Your task to perform on an android device: choose inbox layout in the gmail app Image 0: 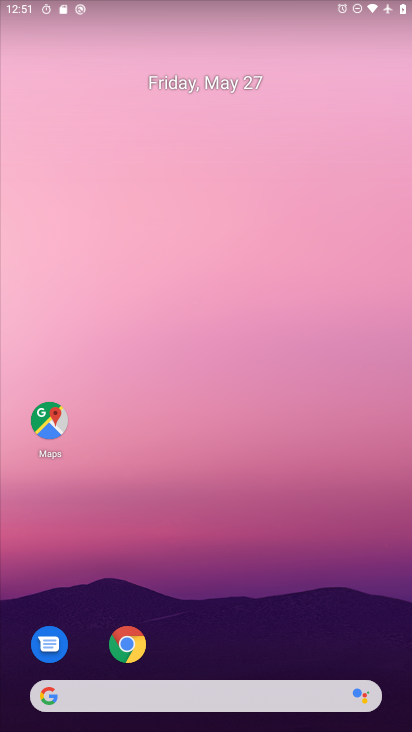
Step 0: drag from (240, 638) to (212, 247)
Your task to perform on an android device: choose inbox layout in the gmail app Image 1: 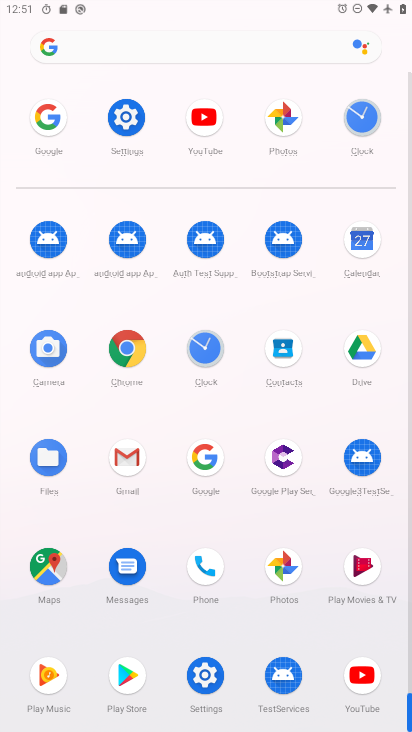
Step 1: click (137, 456)
Your task to perform on an android device: choose inbox layout in the gmail app Image 2: 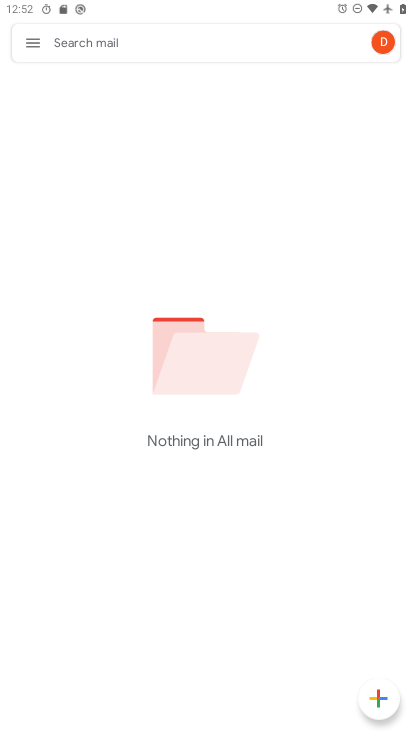
Step 2: click (24, 31)
Your task to perform on an android device: choose inbox layout in the gmail app Image 3: 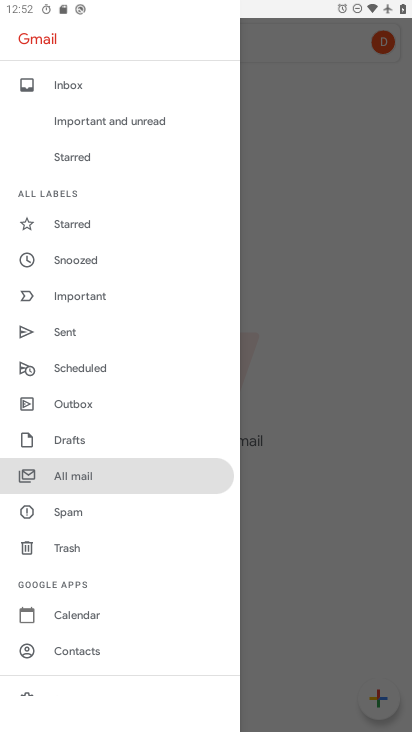
Step 3: drag from (102, 633) to (91, 430)
Your task to perform on an android device: choose inbox layout in the gmail app Image 4: 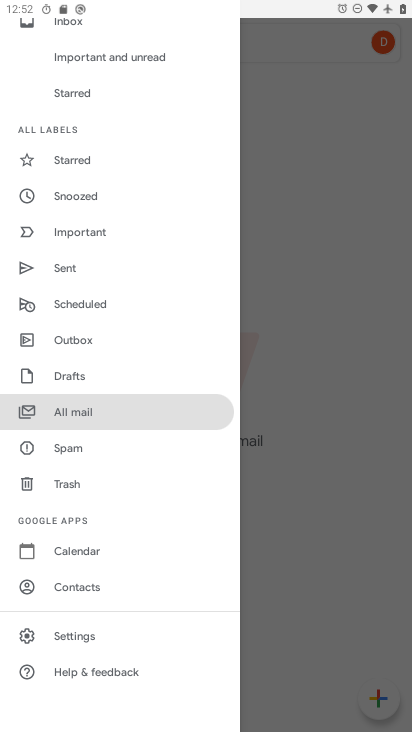
Step 4: click (80, 642)
Your task to perform on an android device: choose inbox layout in the gmail app Image 5: 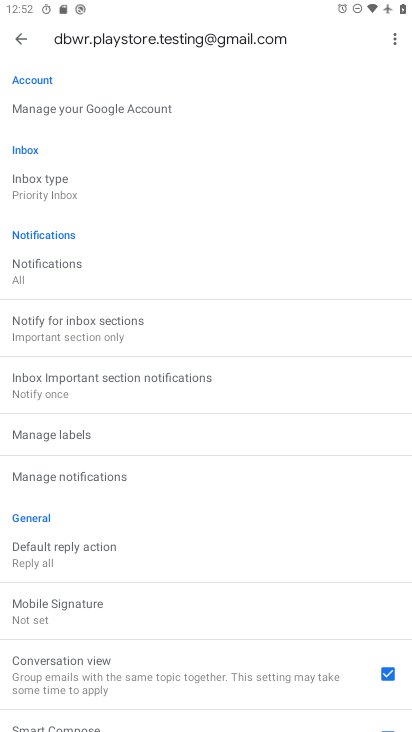
Step 5: click (92, 193)
Your task to perform on an android device: choose inbox layout in the gmail app Image 6: 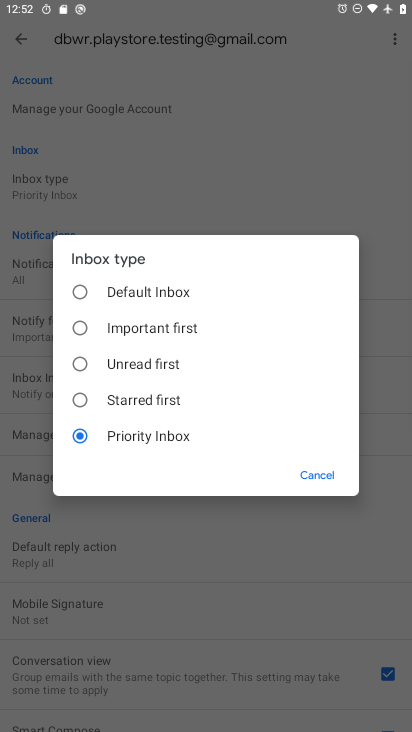
Step 6: click (99, 290)
Your task to perform on an android device: choose inbox layout in the gmail app Image 7: 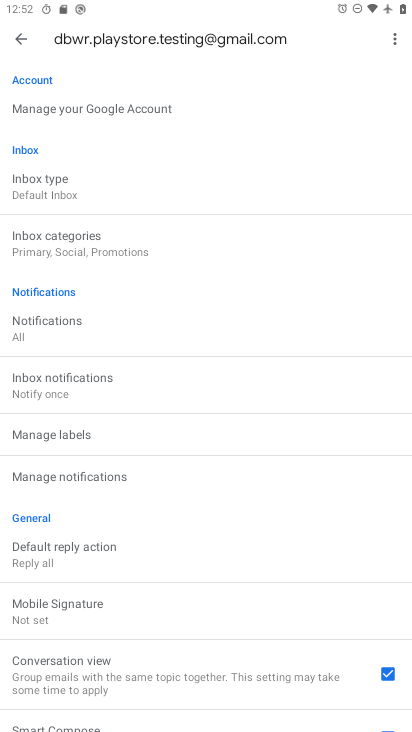
Step 7: task complete